Your task to perform on an android device: turn notification dots on Image 0: 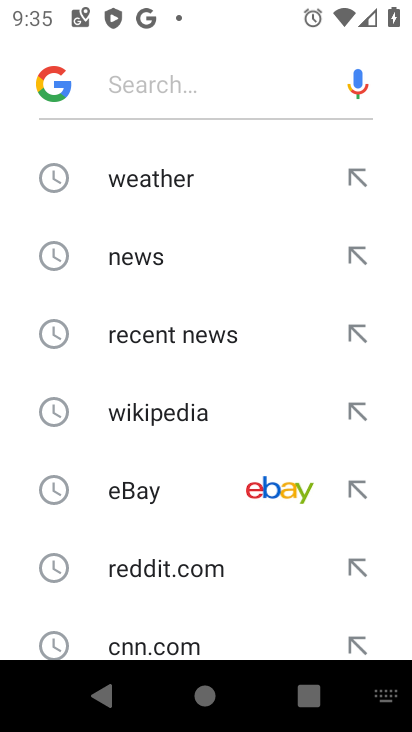
Step 0: press home button
Your task to perform on an android device: turn notification dots on Image 1: 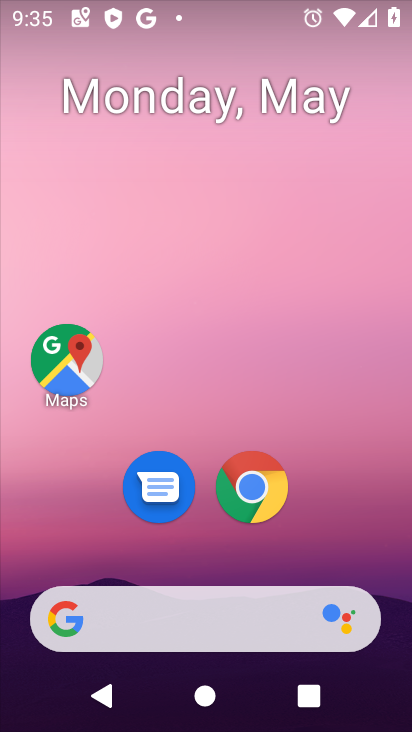
Step 1: drag from (195, 537) to (112, 33)
Your task to perform on an android device: turn notification dots on Image 2: 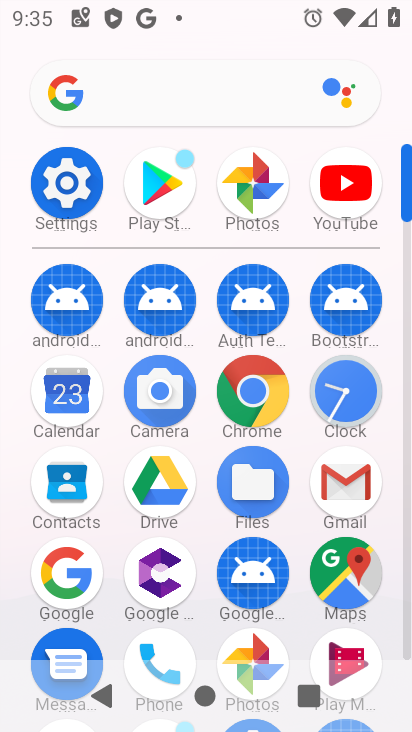
Step 2: click (72, 166)
Your task to perform on an android device: turn notification dots on Image 3: 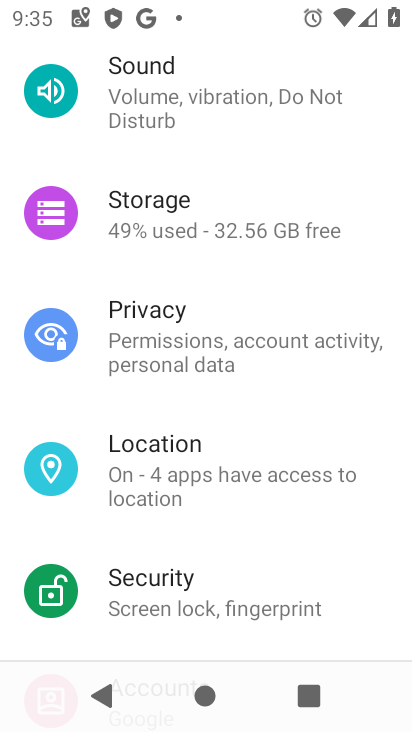
Step 3: drag from (109, 518) to (161, 127)
Your task to perform on an android device: turn notification dots on Image 4: 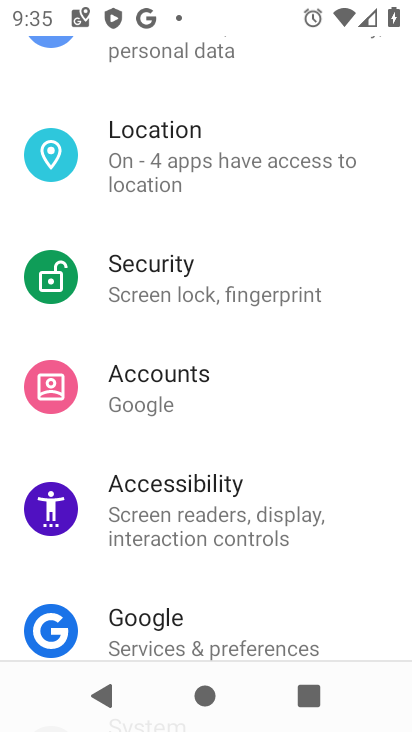
Step 4: drag from (87, 195) to (188, 594)
Your task to perform on an android device: turn notification dots on Image 5: 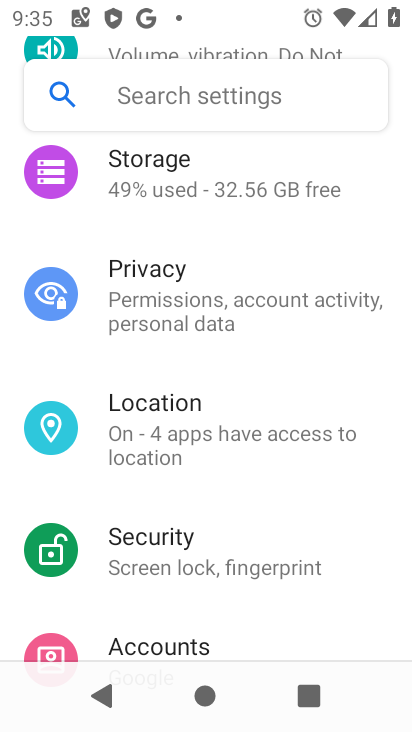
Step 5: drag from (101, 225) to (256, 558)
Your task to perform on an android device: turn notification dots on Image 6: 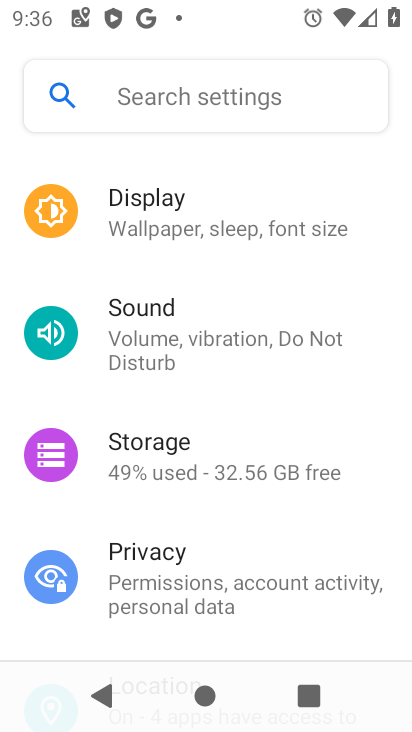
Step 6: drag from (194, 173) to (240, 490)
Your task to perform on an android device: turn notification dots on Image 7: 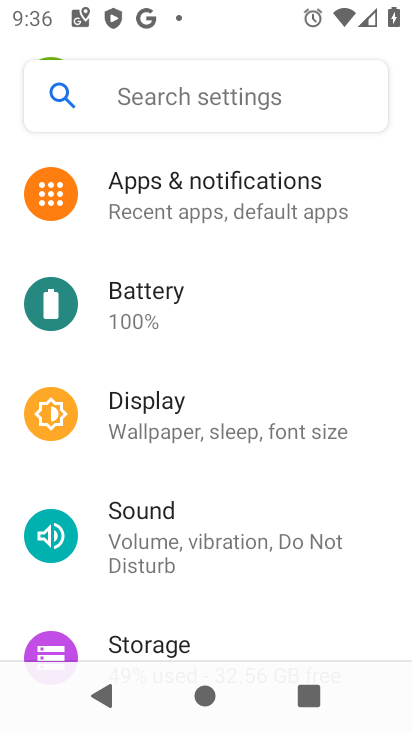
Step 7: click (178, 214)
Your task to perform on an android device: turn notification dots on Image 8: 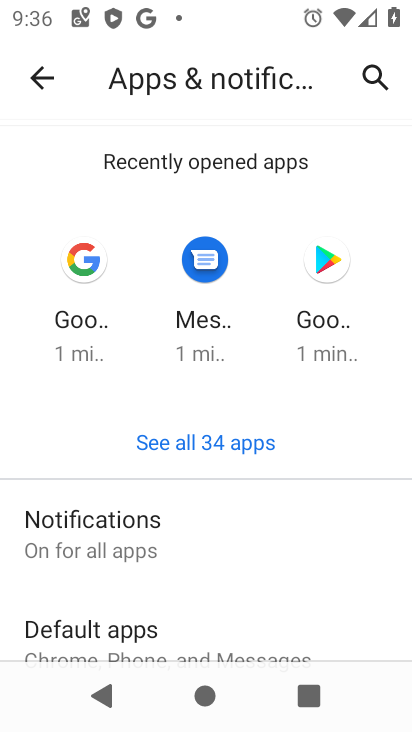
Step 8: click (95, 549)
Your task to perform on an android device: turn notification dots on Image 9: 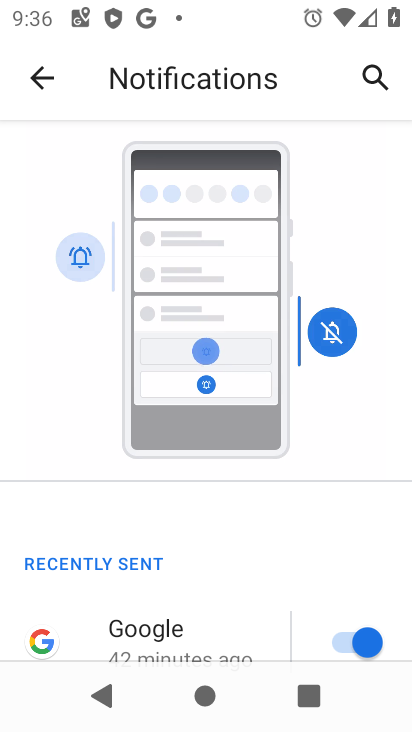
Step 9: drag from (150, 645) to (176, 190)
Your task to perform on an android device: turn notification dots on Image 10: 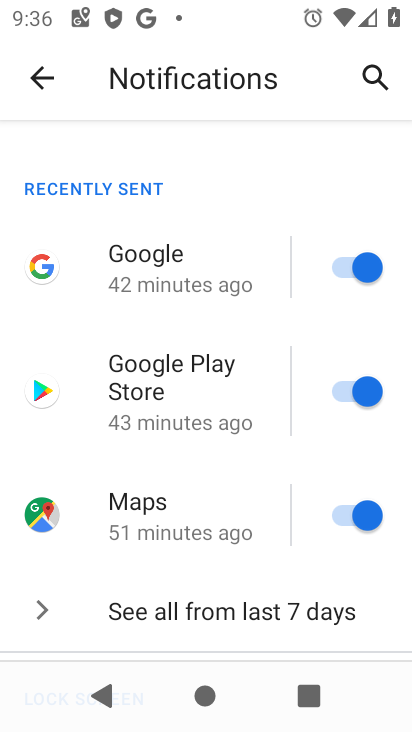
Step 10: drag from (138, 611) to (188, 181)
Your task to perform on an android device: turn notification dots on Image 11: 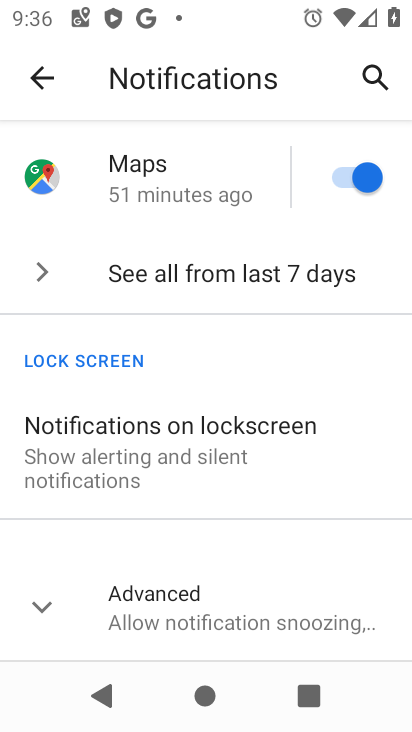
Step 11: click (222, 637)
Your task to perform on an android device: turn notification dots on Image 12: 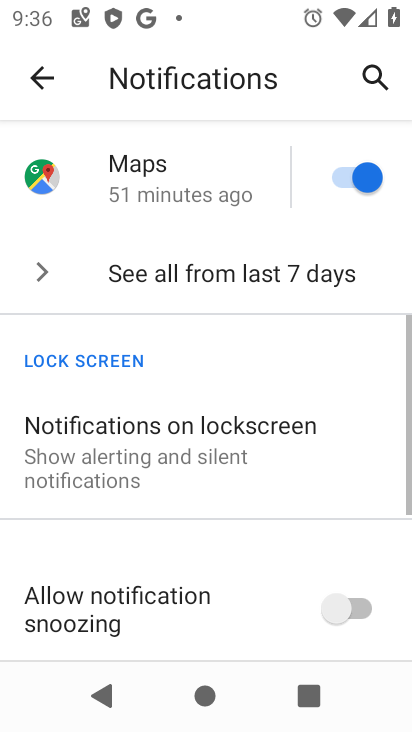
Step 12: task complete